Your task to perform on an android device: Empty the shopping cart on target. Add asus zenbook to the cart on target, then select checkout. Image 0: 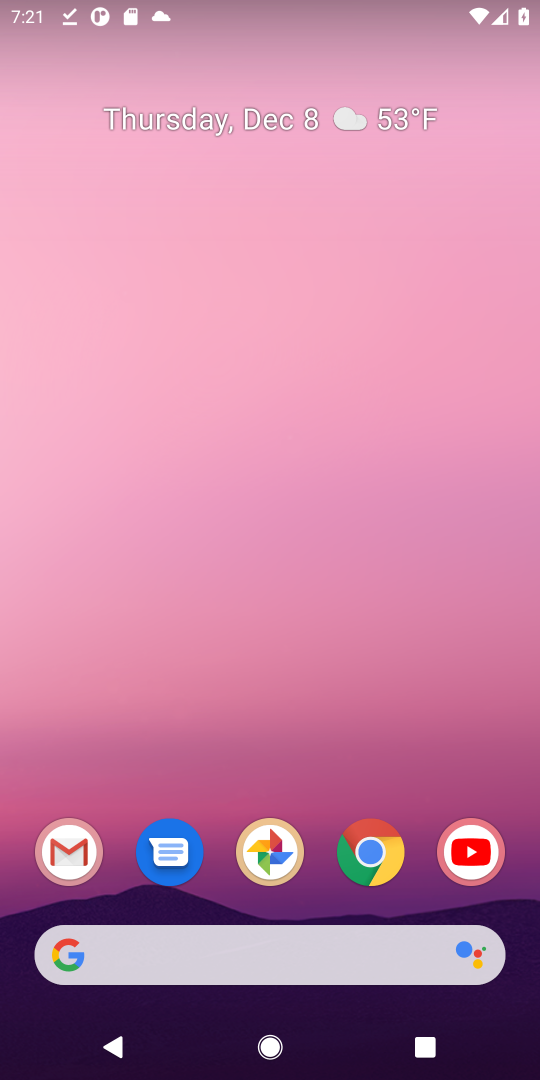
Step 0: click (163, 957)
Your task to perform on an android device: Empty the shopping cart on target. Add asus zenbook to the cart on target, then select checkout. Image 1: 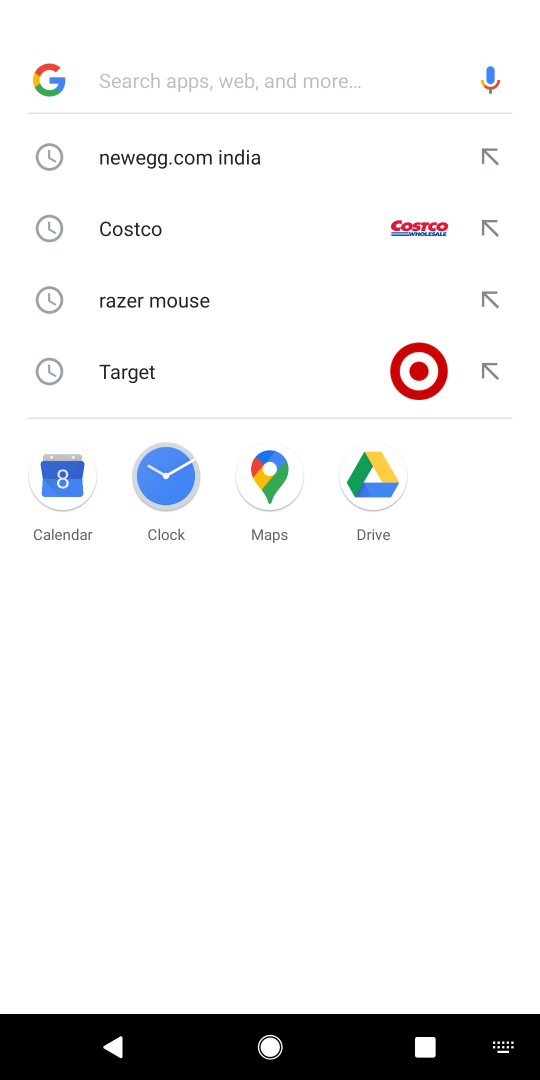
Step 1: task complete